Your task to perform on an android device: Show the shopping cart on bestbuy.com. Search for "macbook" on bestbuy.com, select the first entry, add it to the cart, then select checkout. Image 0: 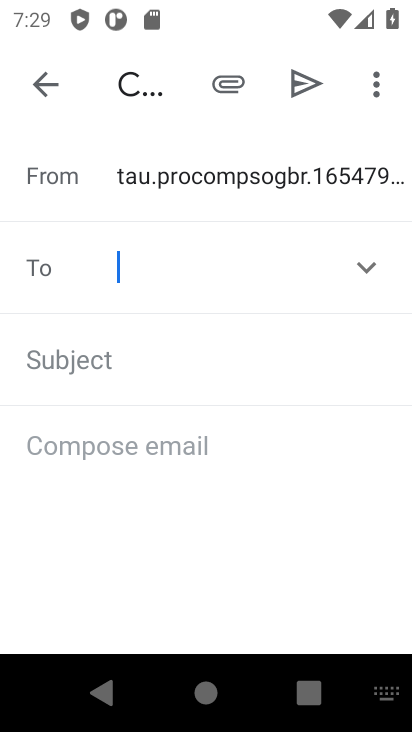
Step 0: press home button
Your task to perform on an android device: Show the shopping cart on bestbuy.com. Search for "macbook" on bestbuy.com, select the first entry, add it to the cart, then select checkout. Image 1: 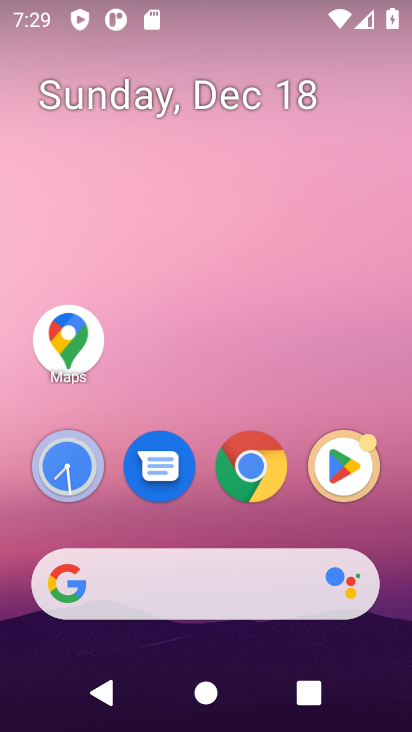
Step 1: click (257, 471)
Your task to perform on an android device: Show the shopping cart on bestbuy.com. Search for "macbook" on bestbuy.com, select the first entry, add it to the cart, then select checkout. Image 2: 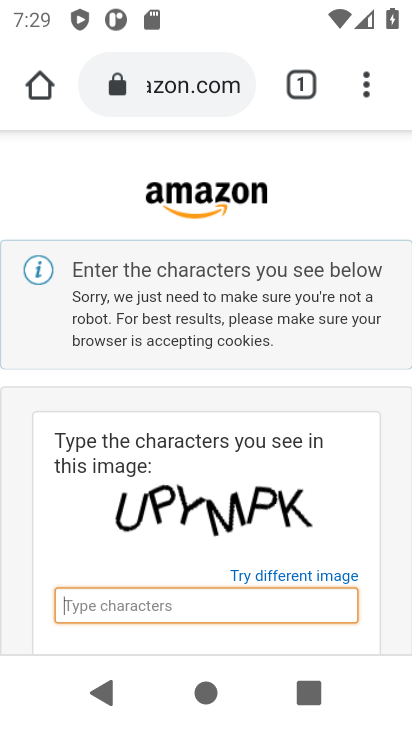
Step 2: click (197, 86)
Your task to perform on an android device: Show the shopping cart on bestbuy.com. Search for "macbook" on bestbuy.com, select the first entry, add it to the cart, then select checkout. Image 3: 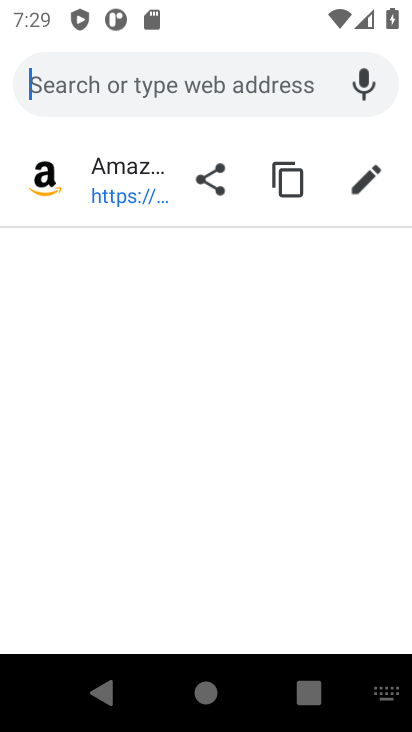
Step 3: type "BESTBUUY"
Your task to perform on an android device: Show the shopping cart on bestbuy.com. Search for "macbook" on bestbuy.com, select the first entry, add it to the cart, then select checkout. Image 4: 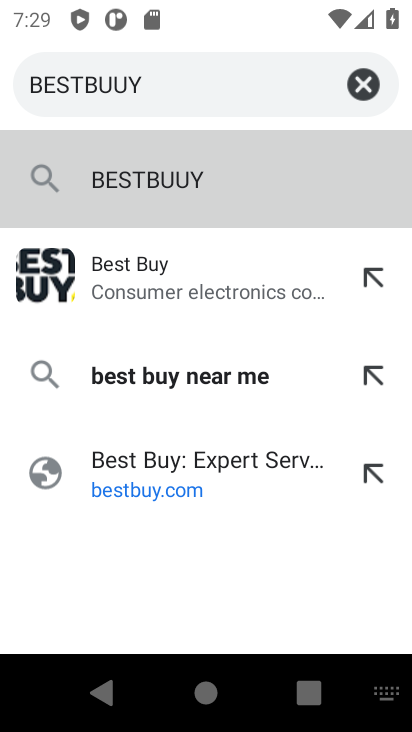
Step 4: click (171, 269)
Your task to perform on an android device: Show the shopping cart on bestbuy.com. Search for "macbook" on bestbuy.com, select the first entry, add it to the cart, then select checkout. Image 5: 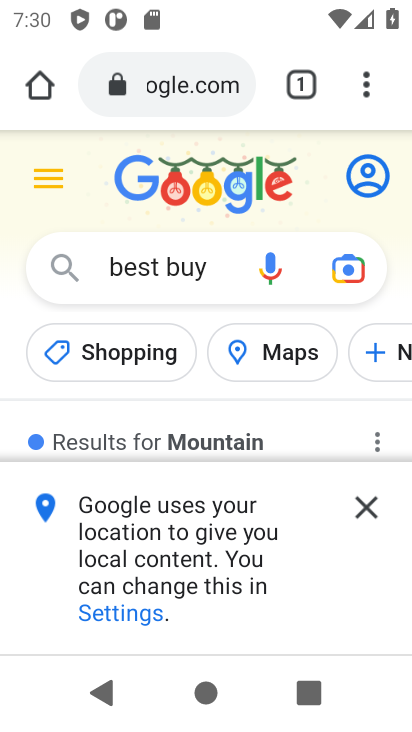
Step 5: drag from (220, 425) to (232, 66)
Your task to perform on an android device: Show the shopping cart on bestbuy.com. Search for "macbook" on bestbuy.com, select the first entry, add it to the cart, then select checkout. Image 6: 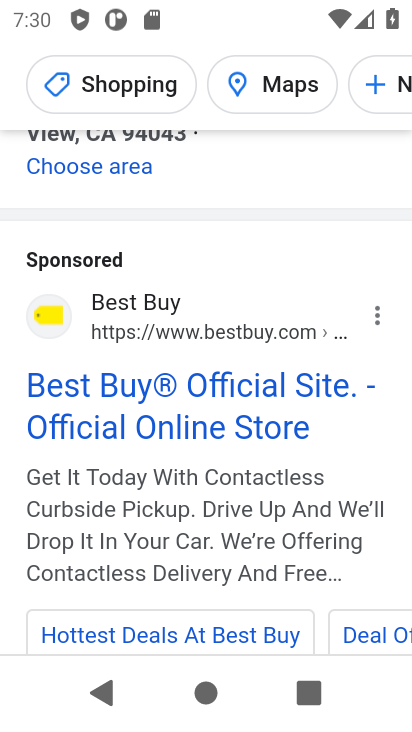
Step 6: click (217, 392)
Your task to perform on an android device: Show the shopping cart on bestbuy.com. Search for "macbook" on bestbuy.com, select the first entry, add it to the cart, then select checkout. Image 7: 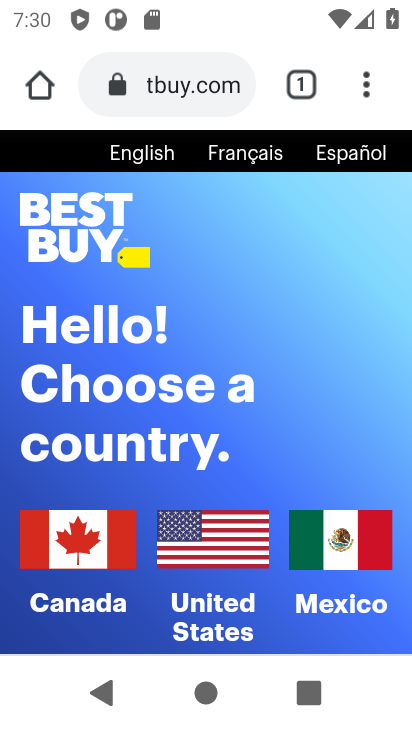
Step 7: click (219, 548)
Your task to perform on an android device: Show the shopping cart on bestbuy.com. Search for "macbook" on bestbuy.com, select the first entry, add it to the cart, then select checkout. Image 8: 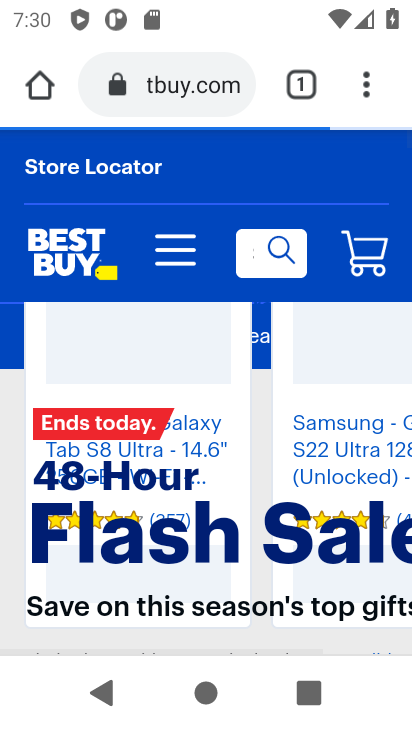
Step 8: click (272, 250)
Your task to perform on an android device: Show the shopping cart on bestbuy.com. Search for "macbook" on bestbuy.com, select the first entry, add it to the cart, then select checkout. Image 9: 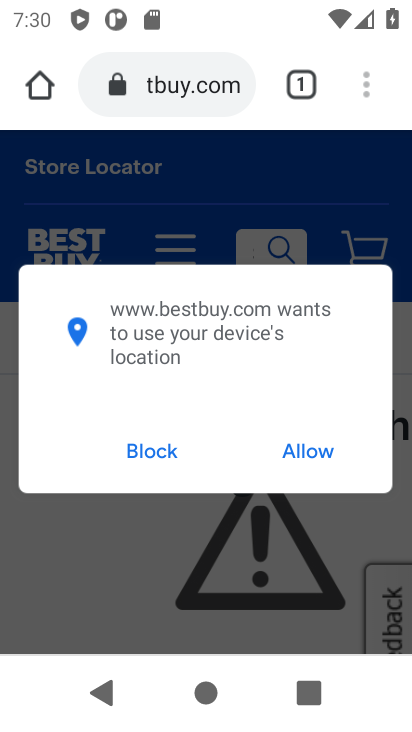
Step 9: click (151, 450)
Your task to perform on an android device: Show the shopping cart on bestbuy.com. Search for "macbook" on bestbuy.com, select the first entry, add it to the cart, then select checkout. Image 10: 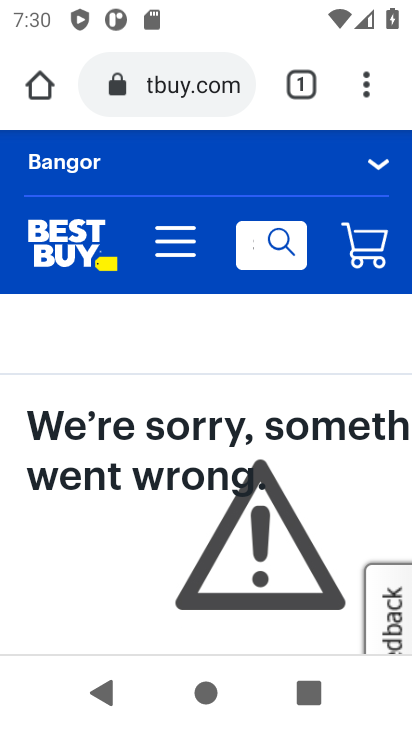
Step 10: click (260, 601)
Your task to perform on an android device: Show the shopping cart on bestbuy.com. Search for "macbook" on bestbuy.com, select the first entry, add it to the cart, then select checkout. Image 11: 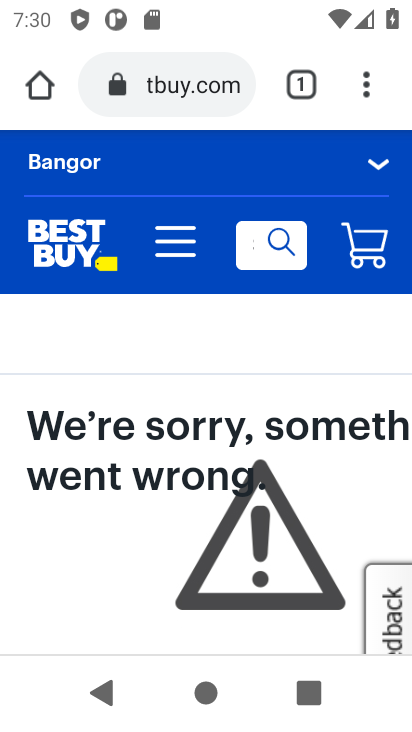
Step 11: click (277, 239)
Your task to perform on an android device: Show the shopping cart on bestbuy.com. Search for "macbook" on bestbuy.com, select the first entry, add it to the cart, then select checkout. Image 12: 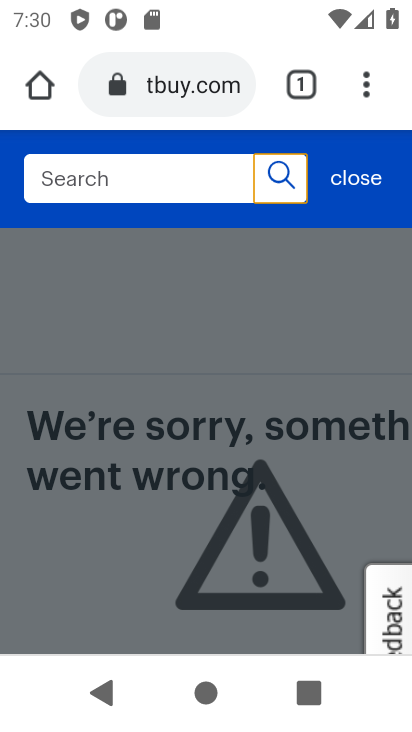
Step 12: click (161, 187)
Your task to perform on an android device: Show the shopping cart on bestbuy.com. Search for "macbook" on bestbuy.com, select the first entry, add it to the cart, then select checkout. Image 13: 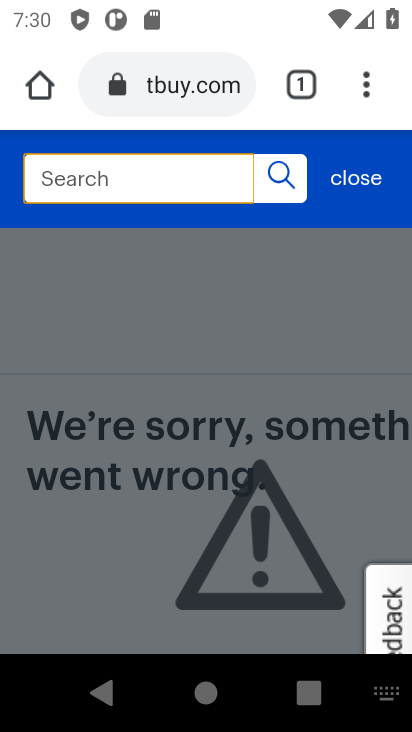
Step 13: type "macbook"
Your task to perform on an android device: Show the shopping cart on bestbuy.com. Search for "macbook" on bestbuy.com, select the first entry, add it to the cart, then select checkout. Image 14: 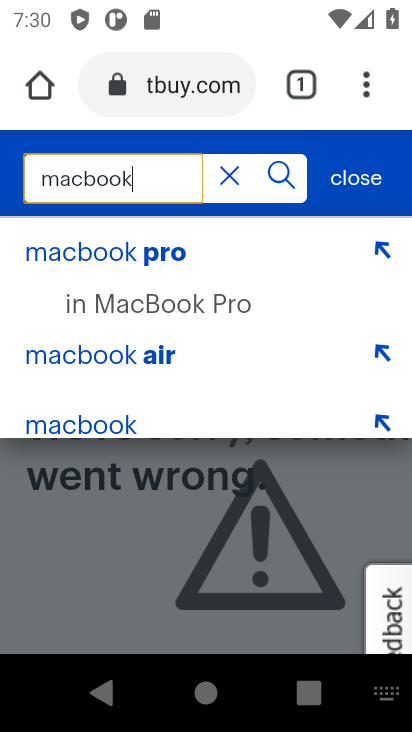
Step 14: click (69, 261)
Your task to perform on an android device: Show the shopping cart on bestbuy.com. Search for "macbook" on bestbuy.com, select the first entry, add it to the cart, then select checkout. Image 15: 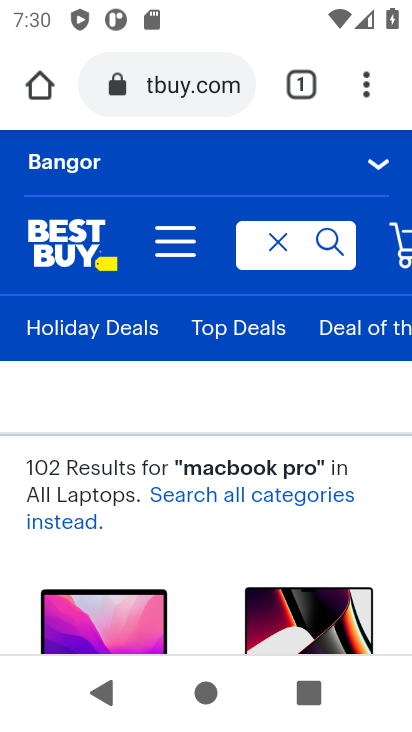
Step 15: drag from (191, 556) to (201, 189)
Your task to perform on an android device: Show the shopping cart on bestbuy.com. Search for "macbook" on bestbuy.com, select the first entry, add it to the cart, then select checkout. Image 16: 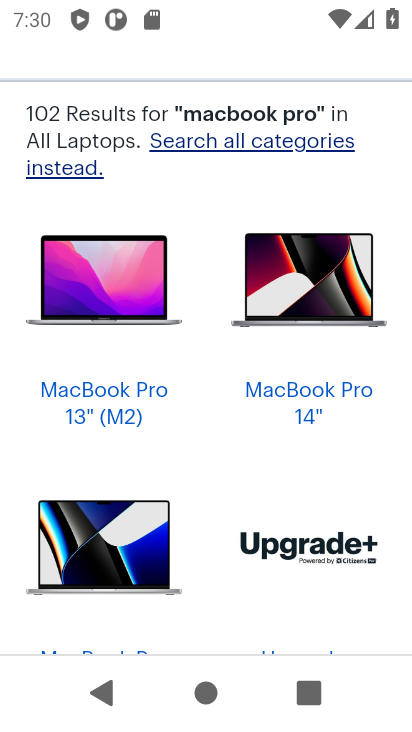
Step 16: click (65, 294)
Your task to perform on an android device: Show the shopping cart on bestbuy.com. Search for "macbook" on bestbuy.com, select the first entry, add it to the cart, then select checkout. Image 17: 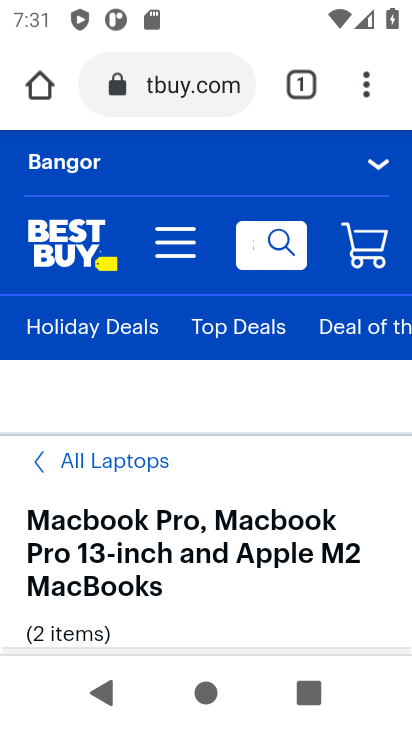
Step 17: drag from (206, 596) to (201, 234)
Your task to perform on an android device: Show the shopping cart on bestbuy.com. Search for "macbook" on bestbuy.com, select the first entry, add it to the cart, then select checkout. Image 18: 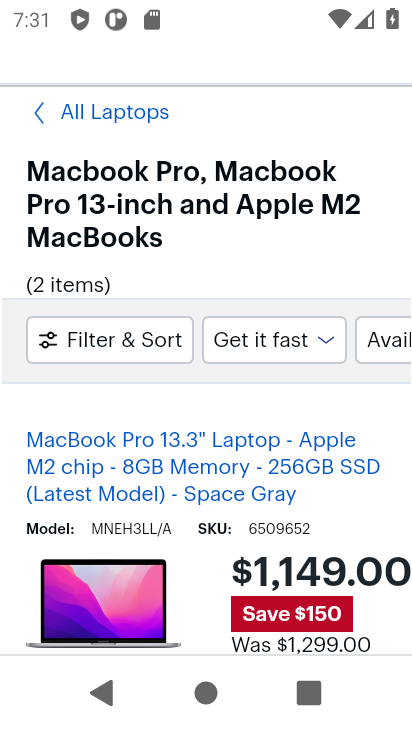
Step 18: drag from (260, 552) to (271, 181)
Your task to perform on an android device: Show the shopping cart on bestbuy.com. Search for "macbook" on bestbuy.com, select the first entry, add it to the cart, then select checkout. Image 19: 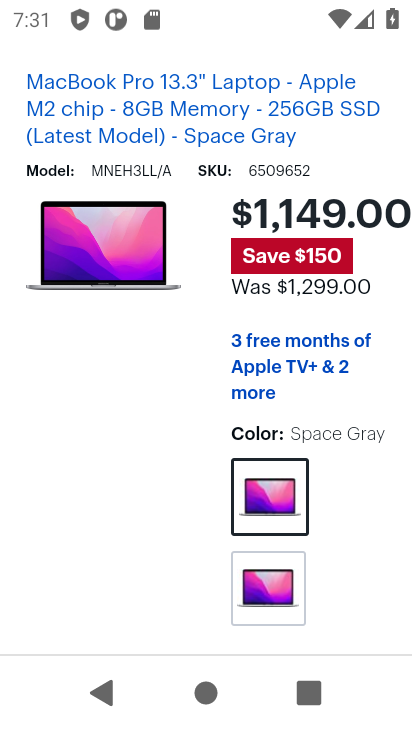
Step 19: drag from (339, 522) to (325, 173)
Your task to perform on an android device: Show the shopping cart on bestbuy.com. Search for "macbook" on bestbuy.com, select the first entry, add it to the cart, then select checkout. Image 20: 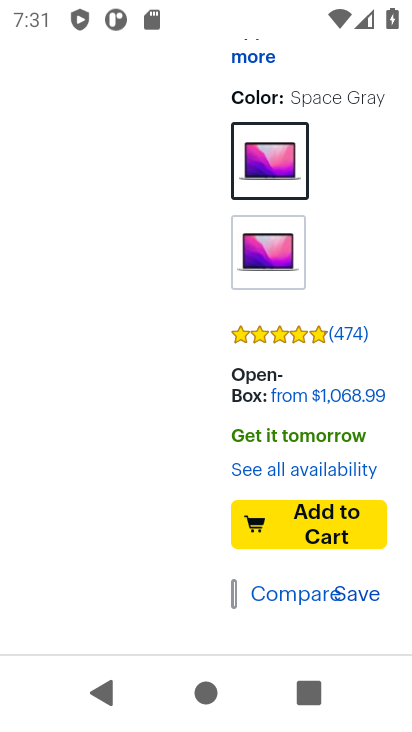
Step 20: click (290, 524)
Your task to perform on an android device: Show the shopping cart on bestbuy.com. Search for "macbook" on bestbuy.com, select the first entry, add it to the cart, then select checkout. Image 21: 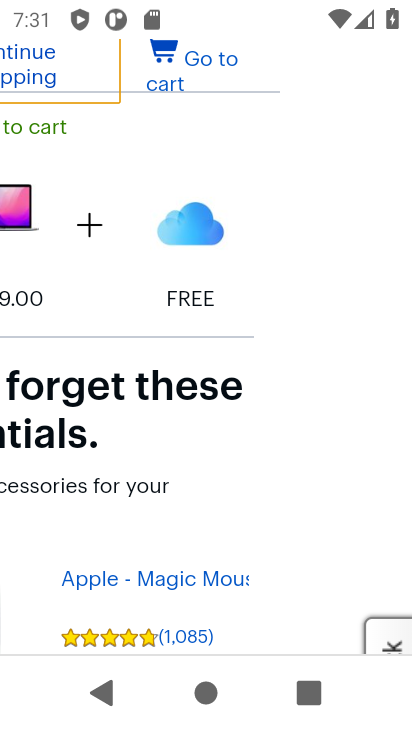
Step 21: task complete